Your task to perform on an android device: turn off wifi Image 0: 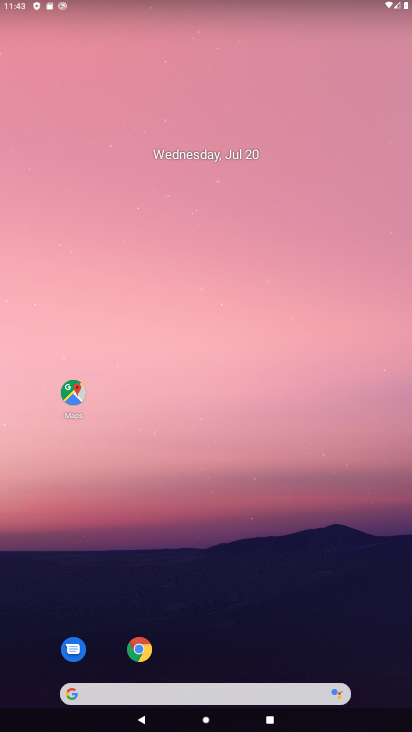
Step 0: drag from (272, 639) to (297, 195)
Your task to perform on an android device: turn off wifi Image 1: 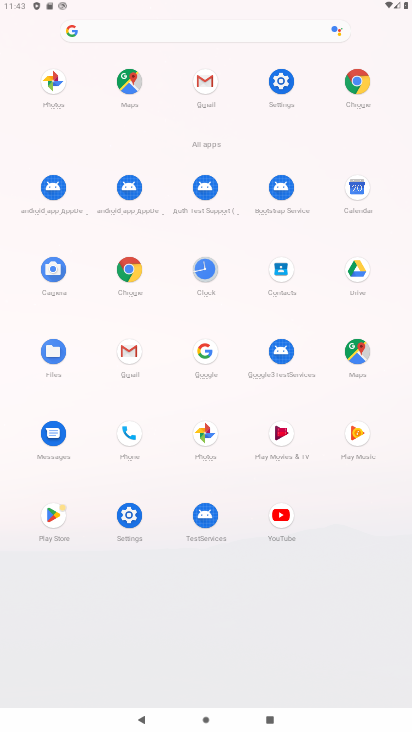
Step 1: click (284, 86)
Your task to perform on an android device: turn off wifi Image 2: 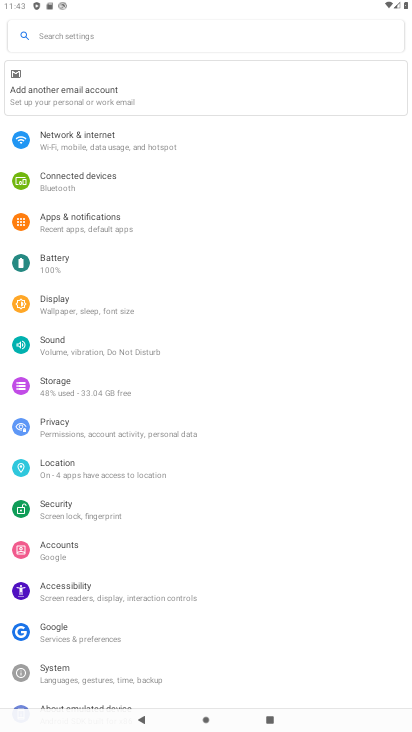
Step 2: click (166, 155)
Your task to perform on an android device: turn off wifi Image 3: 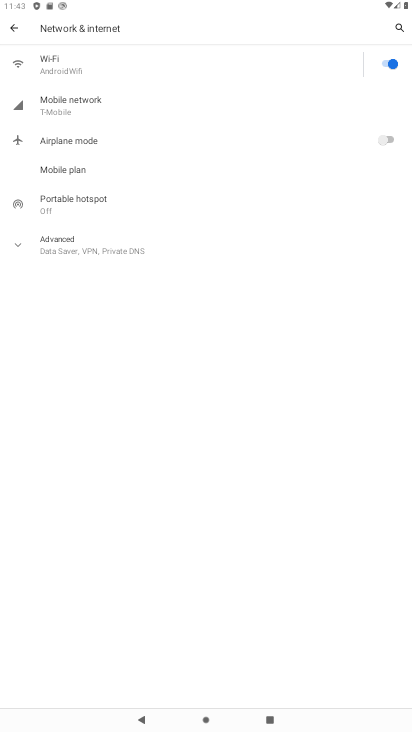
Step 3: click (140, 67)
Your task to perform on an android device: turn off wifi Image 4: 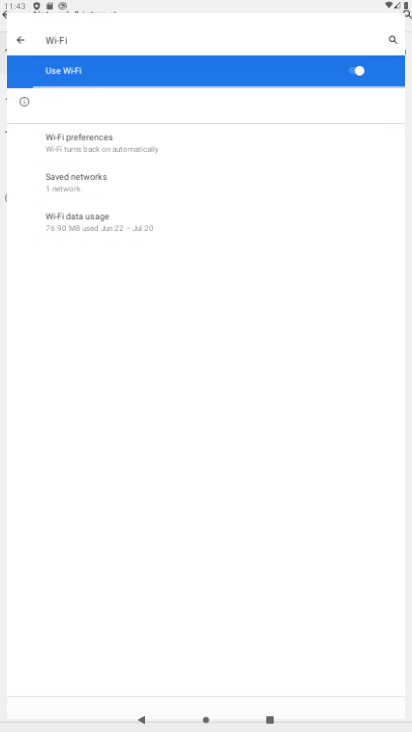
Step 4: task complete